Your task to perform on an android device: empty trash in the gmail app Image 0: 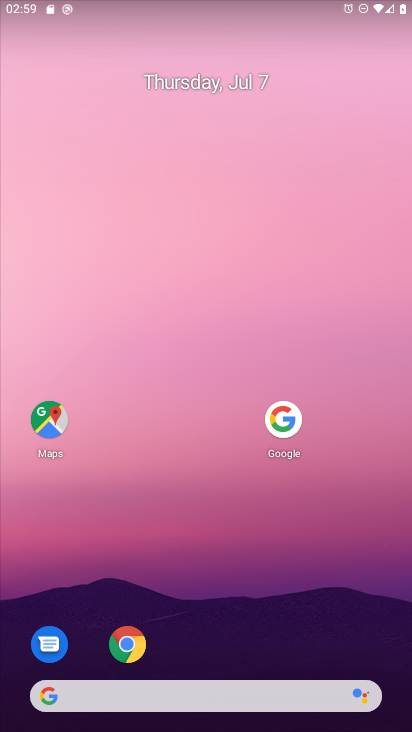
Step 0: drag from (162, 691) to (323, 50)
Your task to perform on an android device: empty trash in the gmail app Image 1: 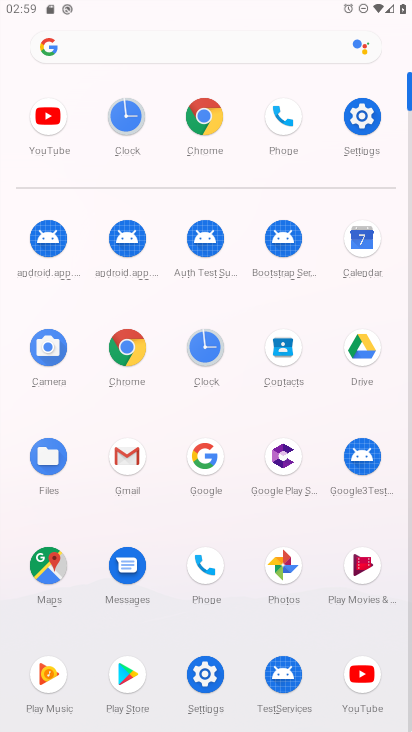
Step 1: click (132, 465)
Your task to perform on an android device: empty trash in the gmail app Image 2: 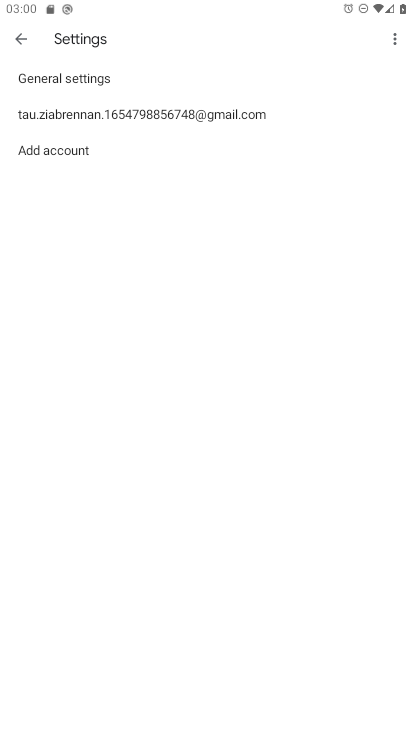
Step 2: click (24, 39)
Your task to perform on an android device: empty trash in the gmail app Image 3: 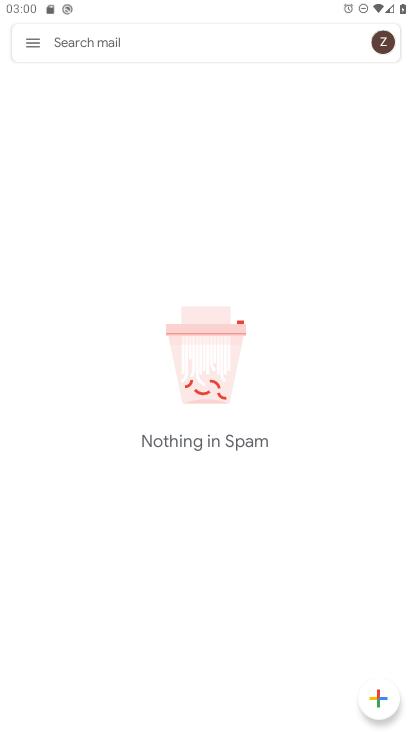
Step 3: click (30, 40)
Your task to perform on an android device: empty trash in the gmail app Image 4: 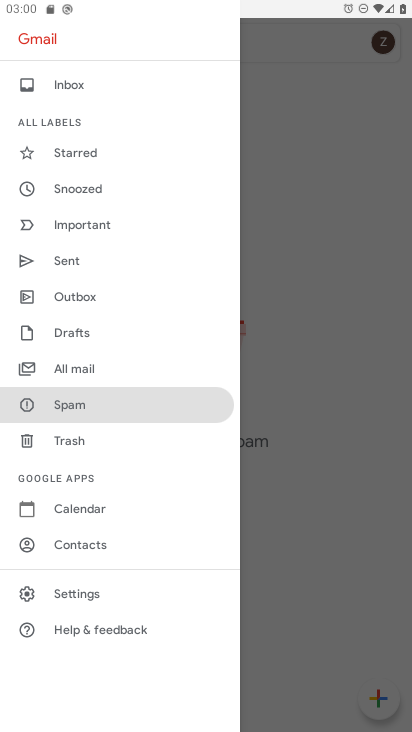
Step 4: click (72, 441)
Your task to perform on an android device: empty trash in the gmail app Image 5: 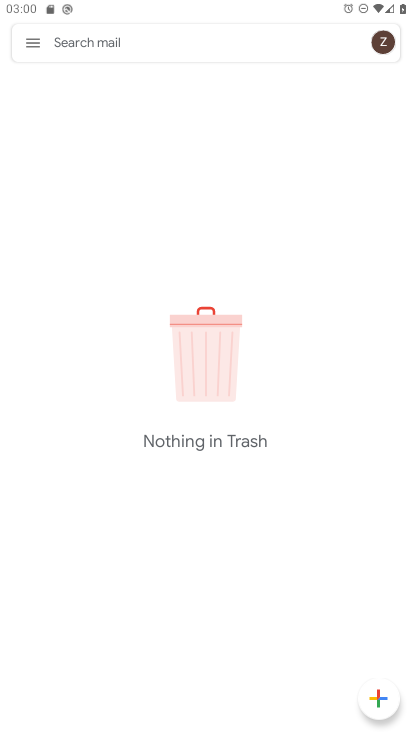
Step 5: task complete